Your task to perform on an android device: What's the weather? Image 0: 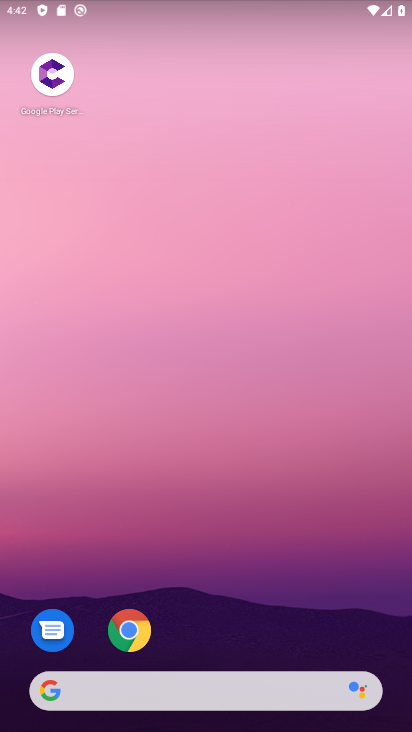
Step 0: drag from (163, 174) to (157, 45)
Your task to perform on an android device: What's the weather? Image 1: 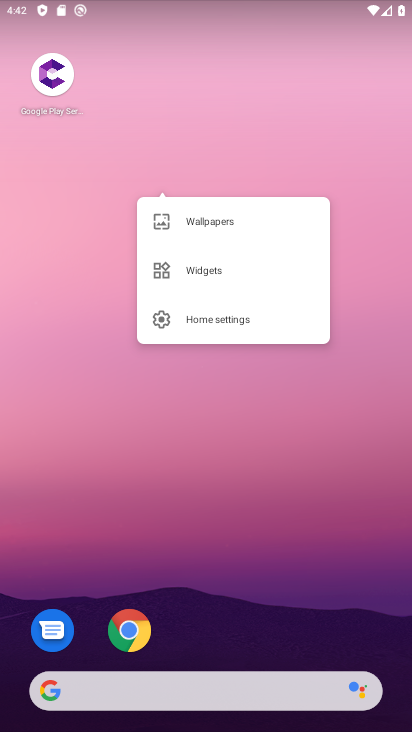
Step 1: click (201, 703)
Your task to perform on an android device: What's the weather? Image 2: 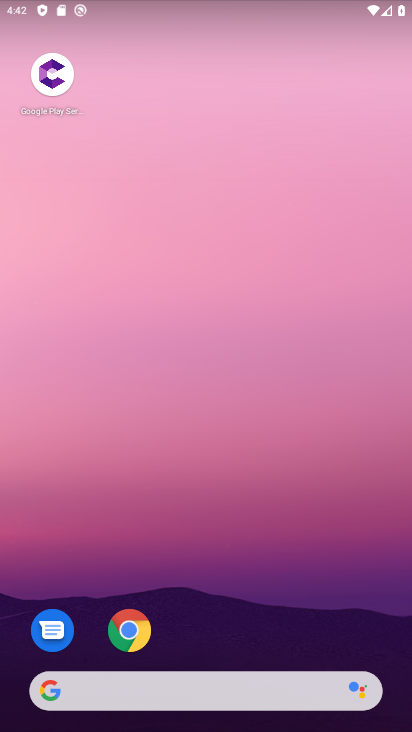
Step 2: click (169, 697)
Your task to perform on an android device: What's the weather? Image 3: 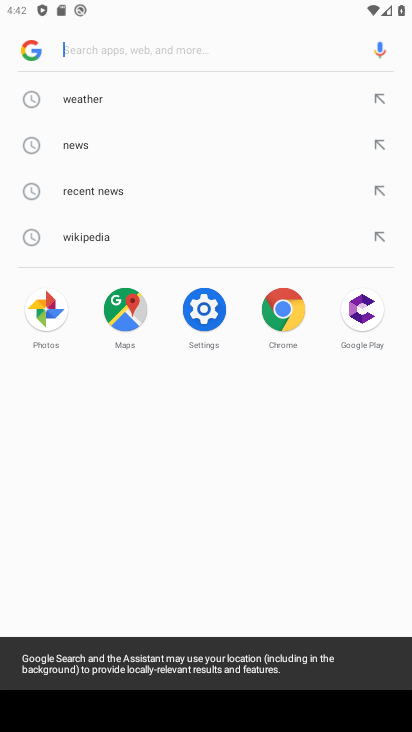
Step 3: click (78, 105)
Your task to perform on an android device: What's the weather? Image 4: 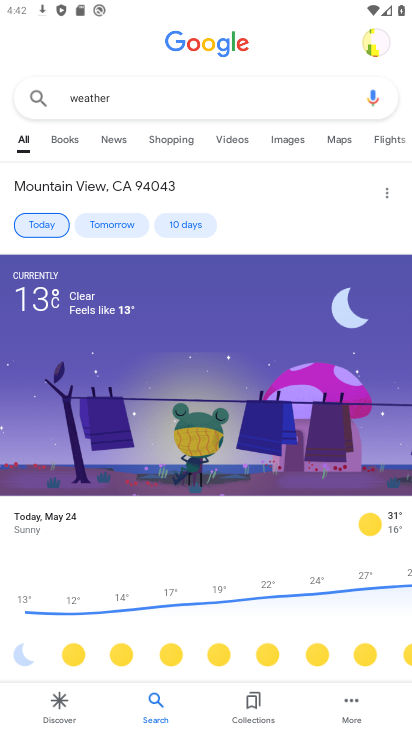
Step 4: task complete